Your task to perform on an android device: Open settings Image 0: 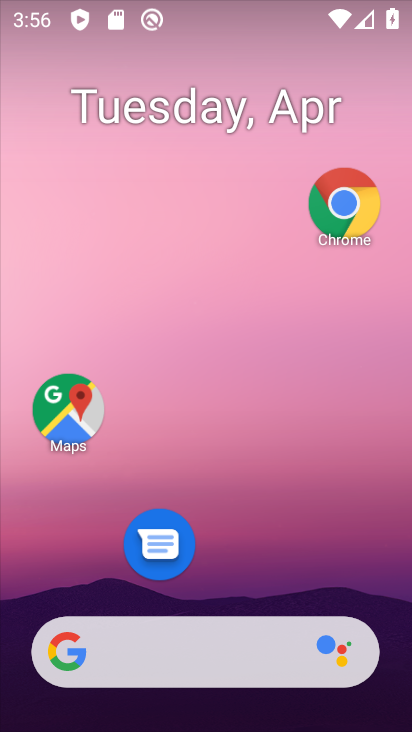
Step 0: drag from (244, 471) to (264, 4)
Your task to perform on an android device: Open settings Image 1: 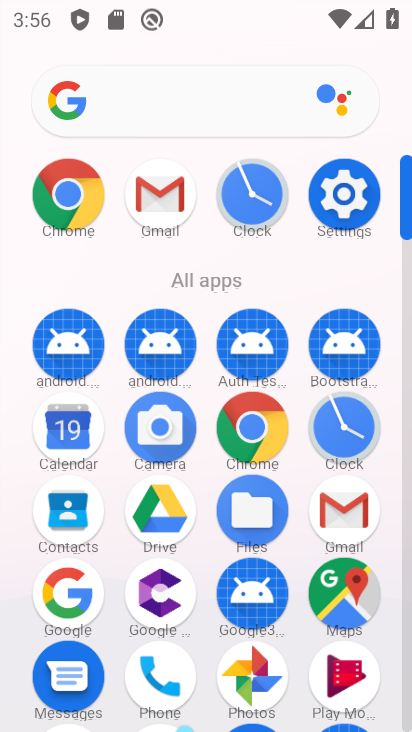
Step 1: click (353, 227)
Your task to perform on an android device: Open settings Image 2: 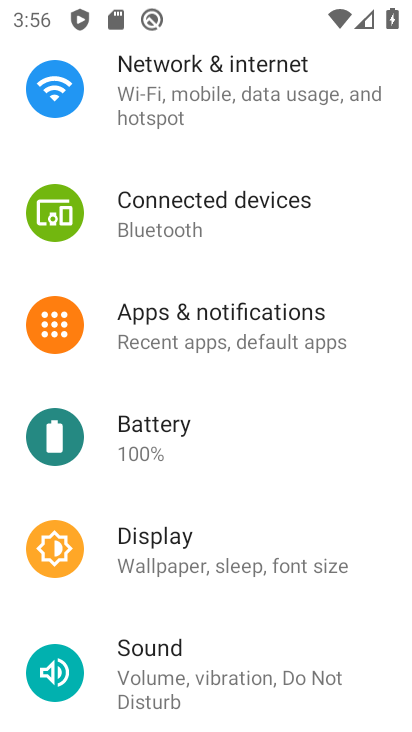
Step 2: task complete